Your task to perform on an android device: Go to Google Image 0: 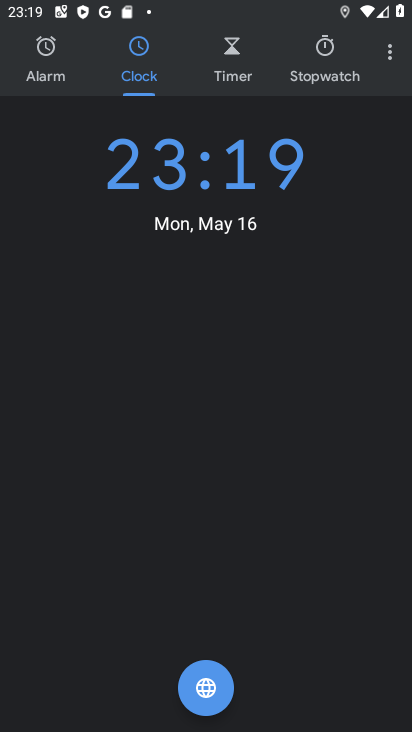
Step 0: press home button
Your task to perform on an android device: Go to Google Image 1: 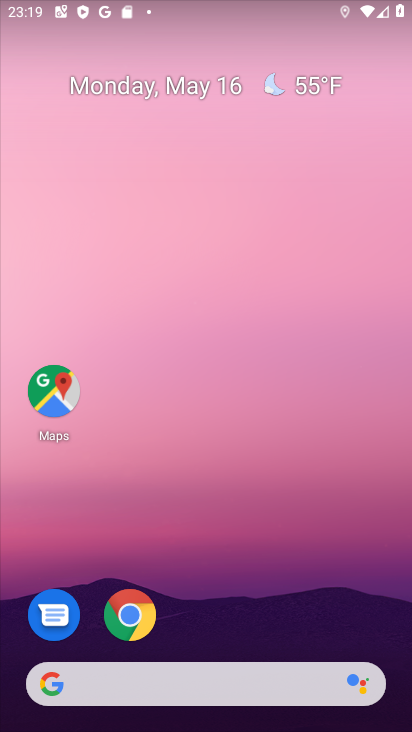
Step 1: drag from (187, 668) to (101, 0)
Your task to perform on an android device: Go to Google Image 2: 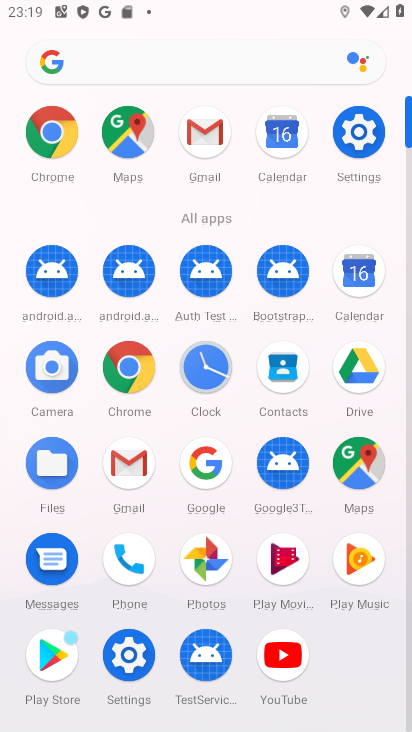
Step 2: click (203, 460)
Your task to perform on an android device: Go to Google Image 3: 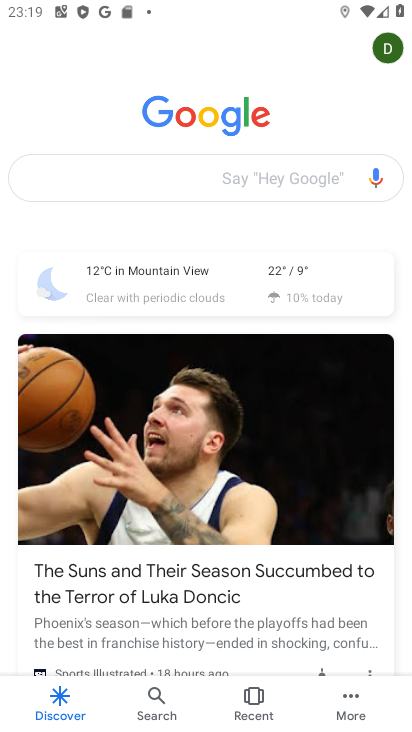
Step 3: task complete